Your task to perform on an android device: empty trash in the gmail app Image 0: 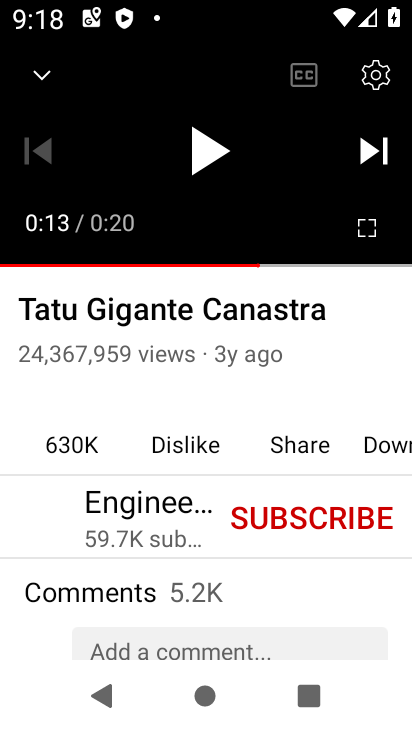
Step 0: press home button
Your task to perform on an android device: empty trash in the gmail app Image 1: 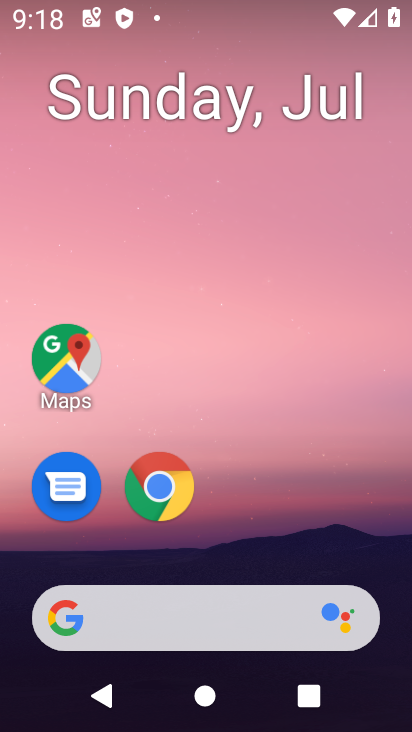
Step 1: drag from (354, 533) to (390, 80)
Your task to perform on an android device: empty trash in the gmail app Image 2: 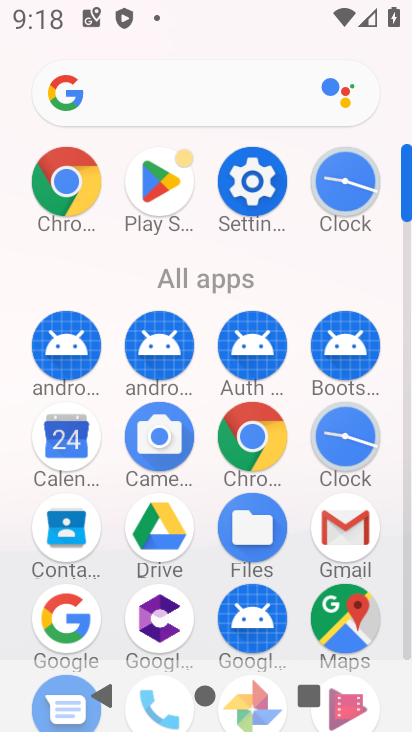
Step 2: click (352, 538)
Your task to perform on an android device: empty trash in the gmail app Image 3: 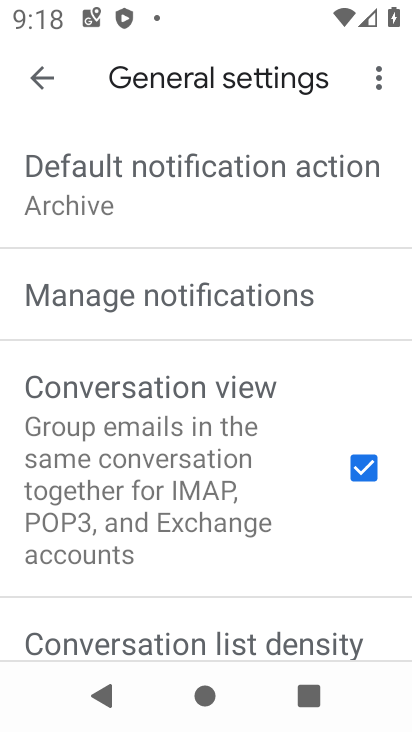
Step 3: press back button
Your task to perform on an android device: empty trash in the gmail app Image 4: 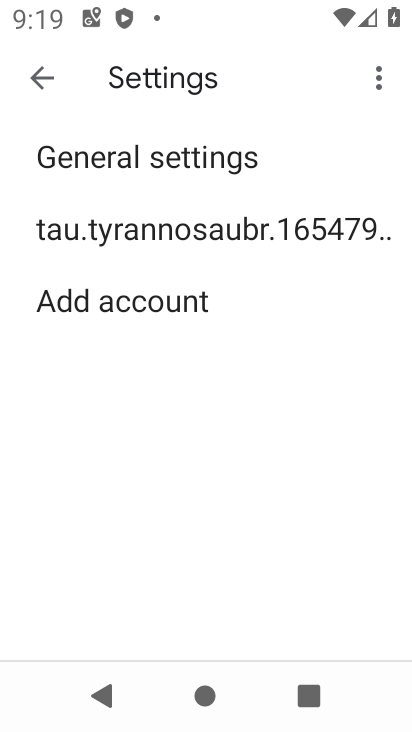
Step 4: press back button
Your task to perform on an android device: empty trash in the gmail app Image 5: 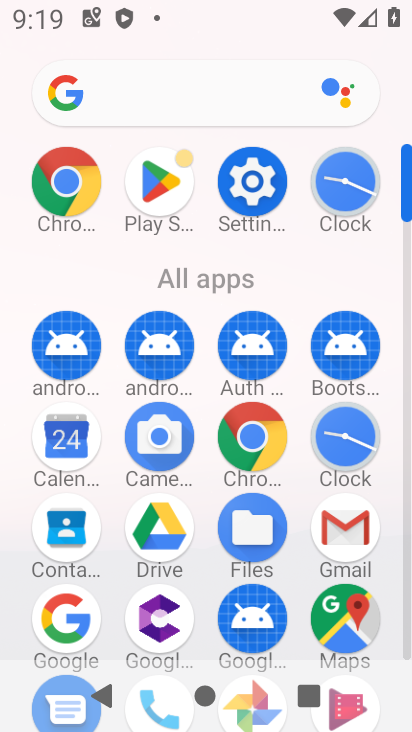
Step 5: click (356, 523)
Your task to perform on an android device: empty trash in the gmail app Image 6: 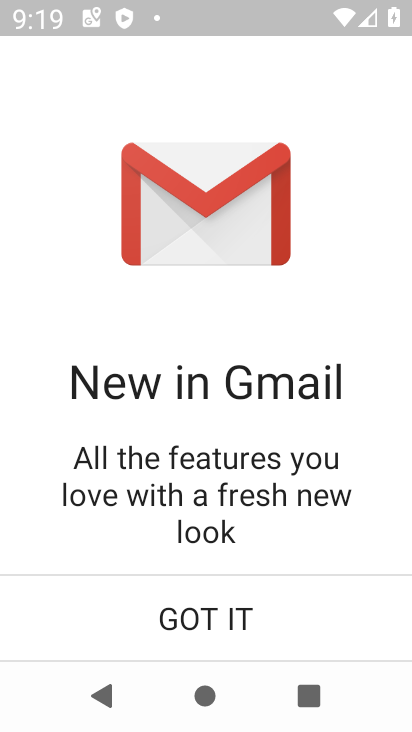
Step 6: click (269, 611)
Your task to perform on an android device: empty trash in the gmail app Image 7: 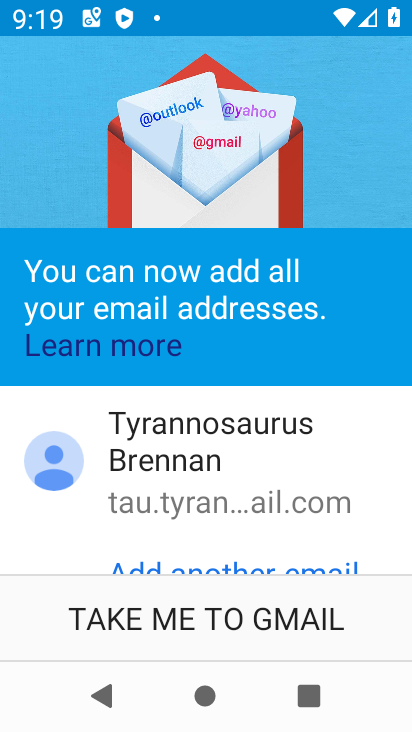
Step 7: click (248, 630)
Your task to perform on an android device: empty trash in the gmail app Image 8: 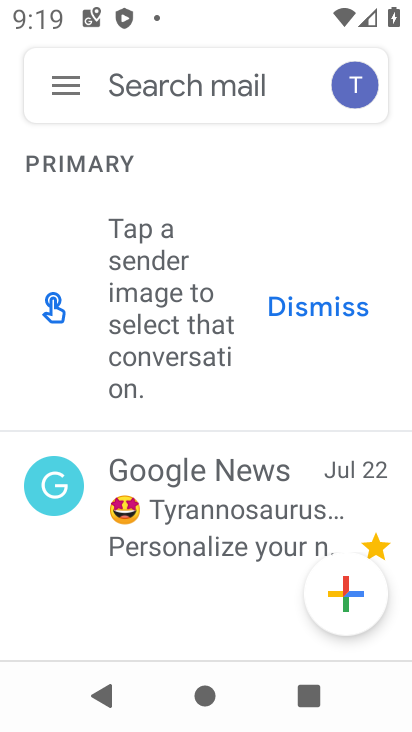
Step 8: click (63, 83)
Your task to perform on an android device: empty trash in the gmail app Image 9: 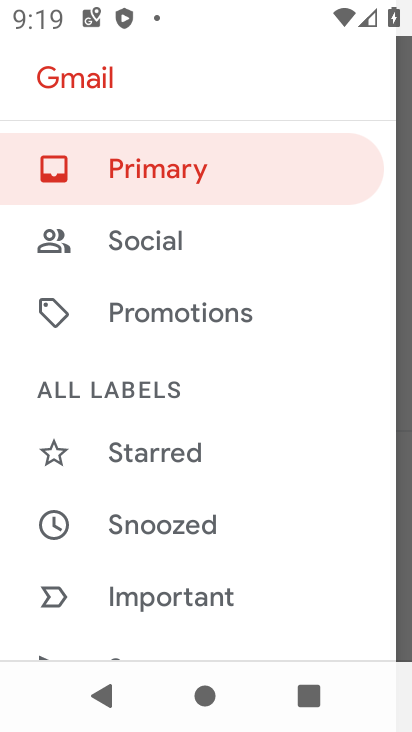
Step 9: drag from (282, 526) to (274, 412)
Your task to perform on an android device: empty trash in the gmail app Image 10: 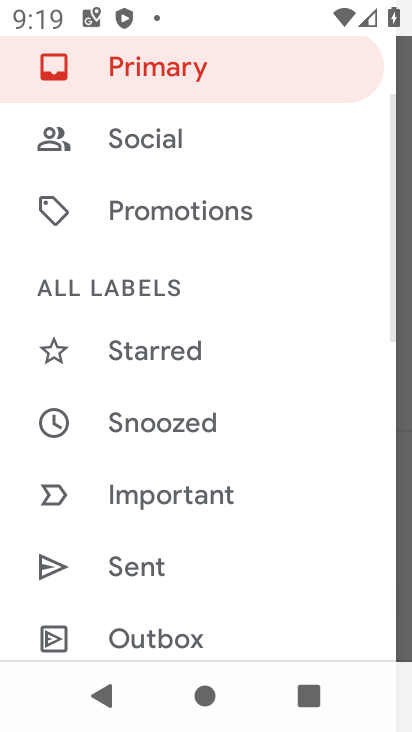
Step 10: drag from (272, 498) to (261, 338)
Your task to perform on an android device: empty trash in the gmail app Image 11: 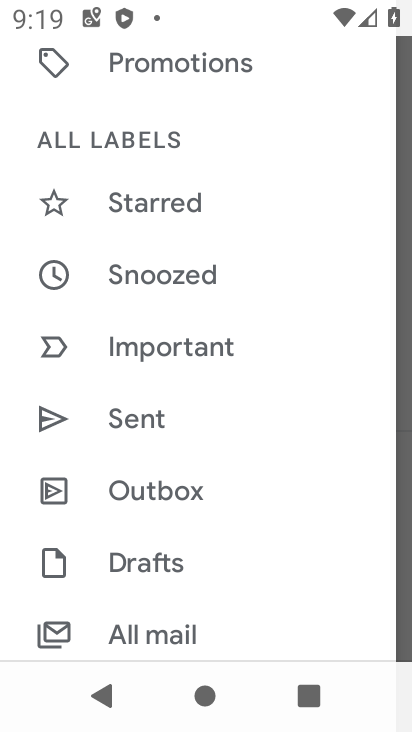
Step 11: drag from (294, 457) to (282, 336)
Your task to perform on an android device: empty trash in the gmail app Image 12: 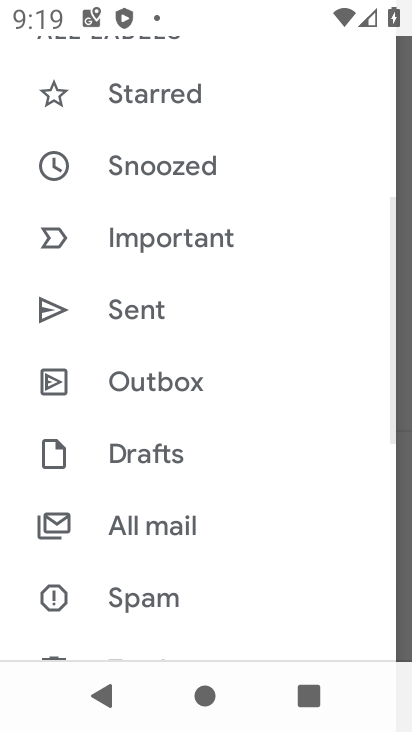
Step 12: drag from (286, 515) to (274, 363)
Your task to perform on an android device: empty trash in the gmail app Image 13: 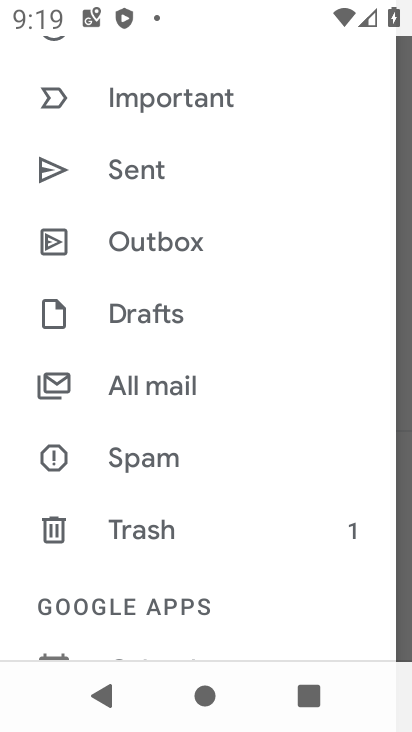
Step 13: click (204, 543)
Your task to perform on an android device: empty trash in the gmail app Image 14: 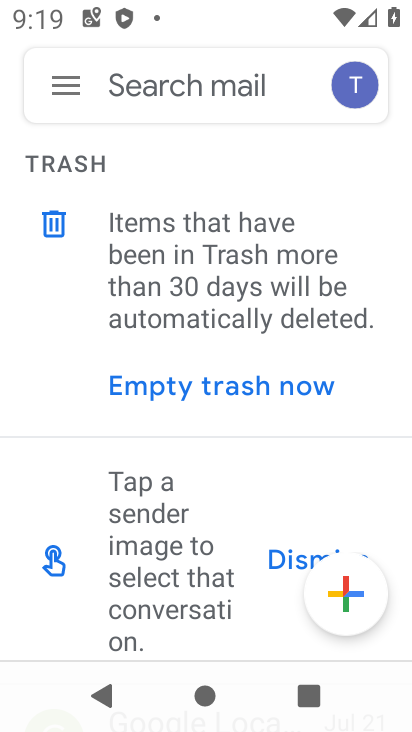
Step 14: click (210, 389)
Your task to perform on an android device: empty trash in the gmail app Image 15: 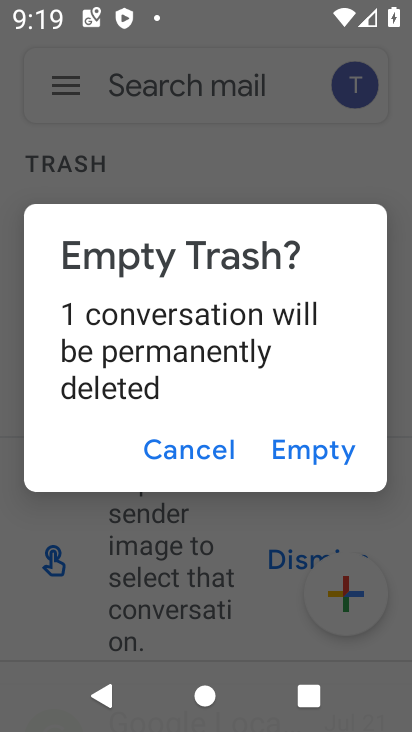
Step 15: click (290, 449)
Your task to perform on an android device: empty trash in the gmail app Image 16: 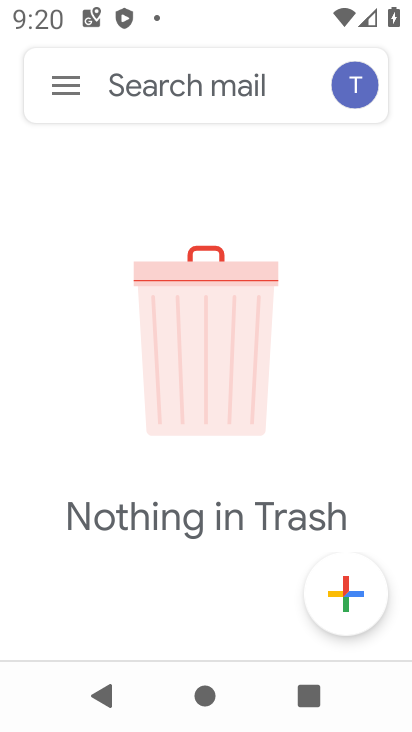
Step 16: task complete